Your task to perform on an android device: Clear all items from cart on amazon.com. Search for dell xps on amazon.com, select the first entry, and add it to the cart. Image 0: 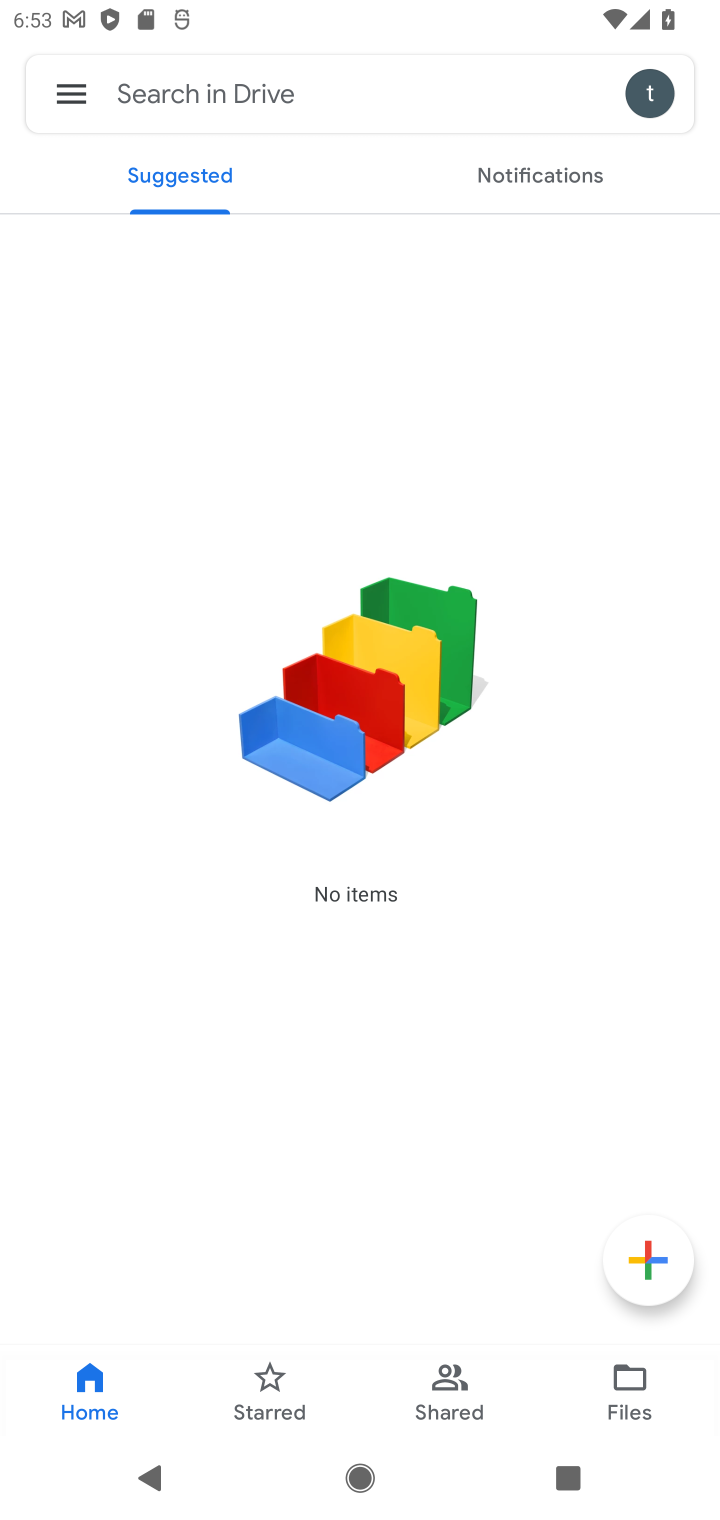
Step 0: press home button
Your task to perform on an android device: Clear all items from cart on amazon.com. Search for dell xps on amazon.com, select the first entry, and add it to the cart. Image 1: 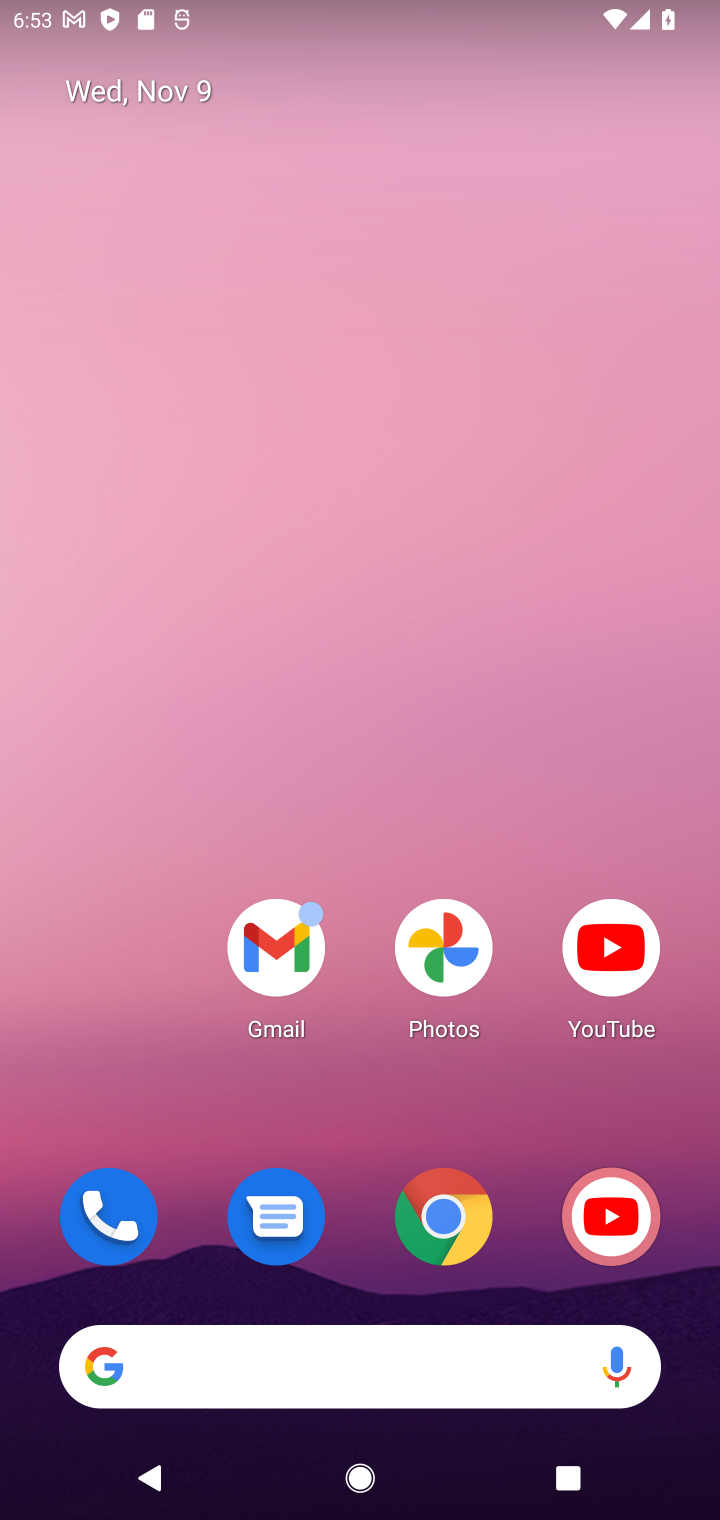
Step 1: drag from (198, 946) to (224, 138)
Your task to perform on an android device: Clear all items from cart on amazon.com. Search for dell xps on amazon.com, select the first entry, and add it to the cart. Image 2: 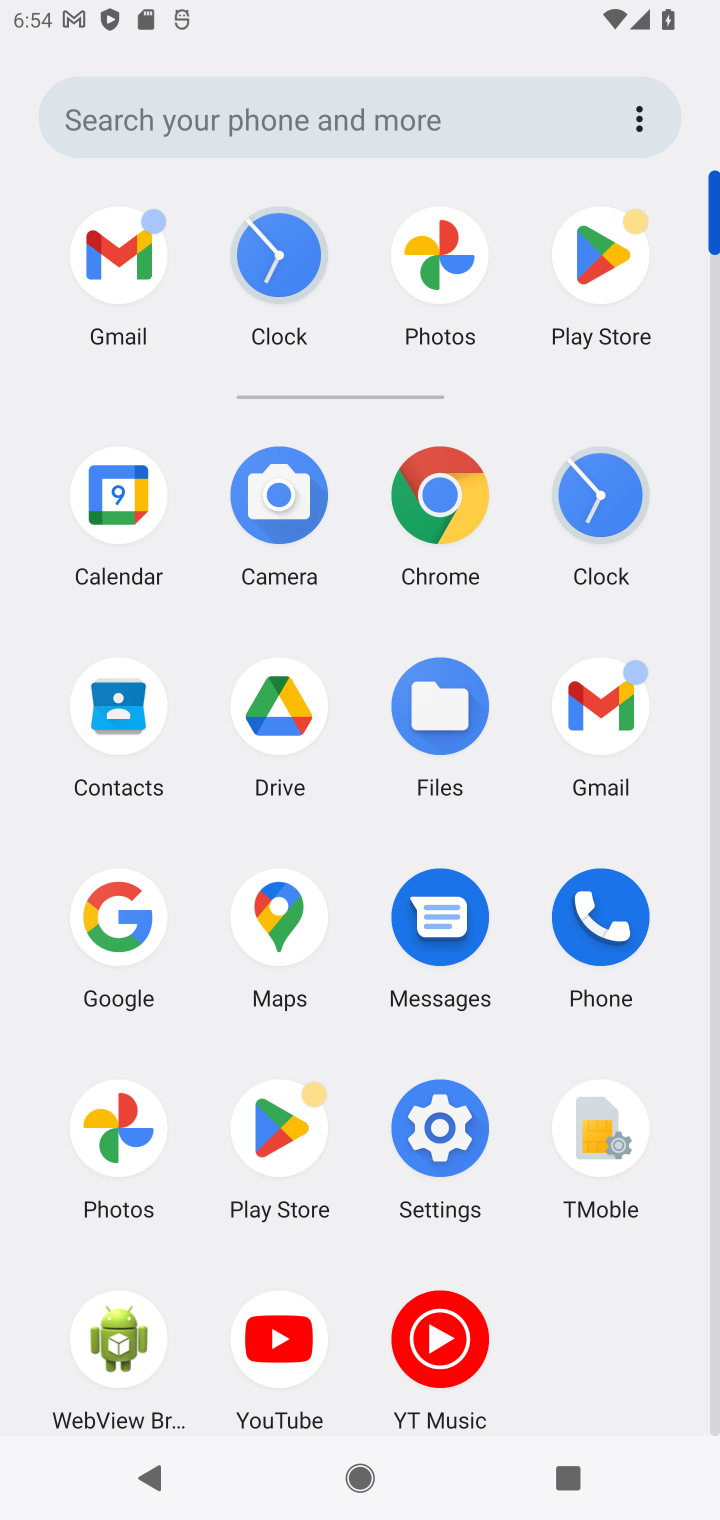
Step 2: click (438, 501)
Your task to perform on an android device: Clear all items from cart on amazon.com. Search for dell xps on amazon.com, select the first entry, and add it to the cart. Image 3: 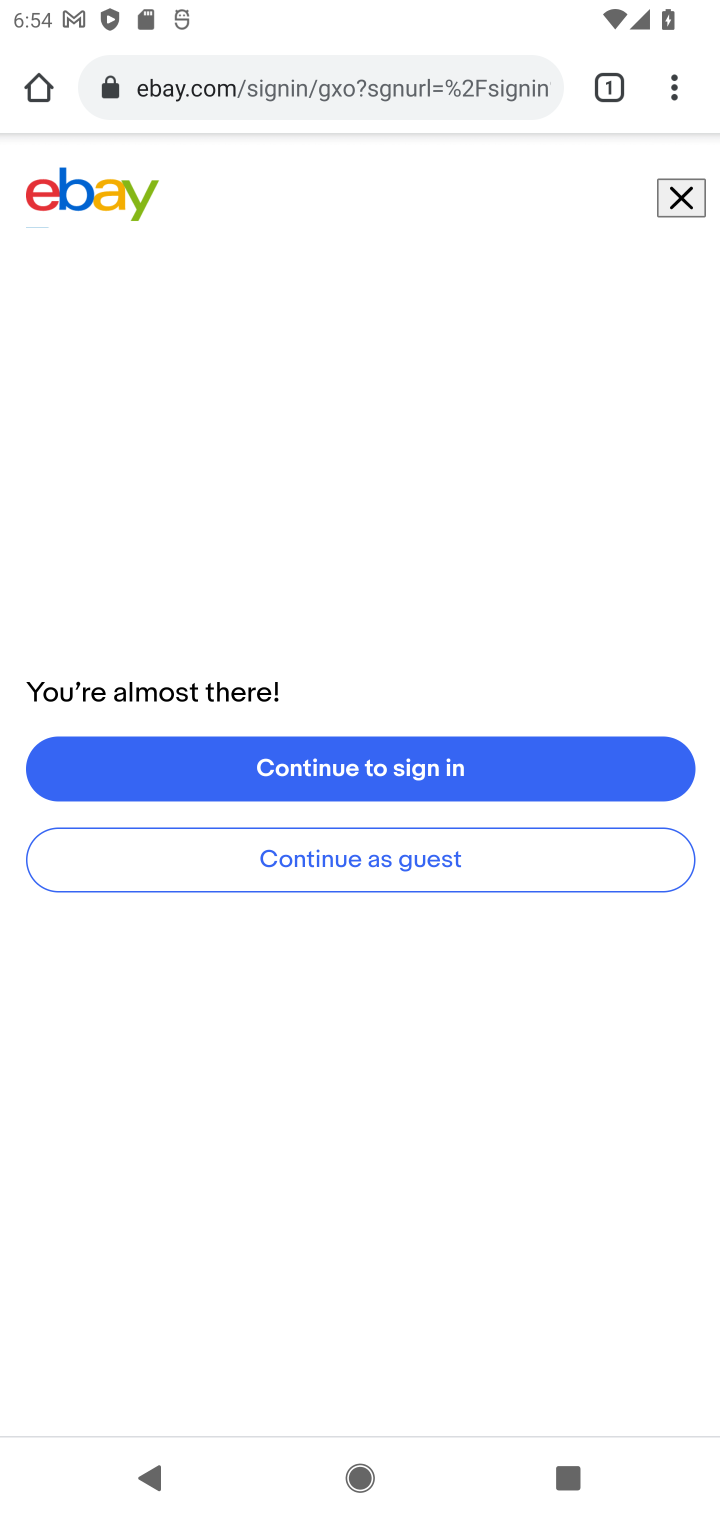
Step 3: click (419, 91)
Your task to perform on an android device: Clear all items from cart on amazon.com. Search for dell xps on amazon.com, select the first entry, and add it to the cart. Image 4: 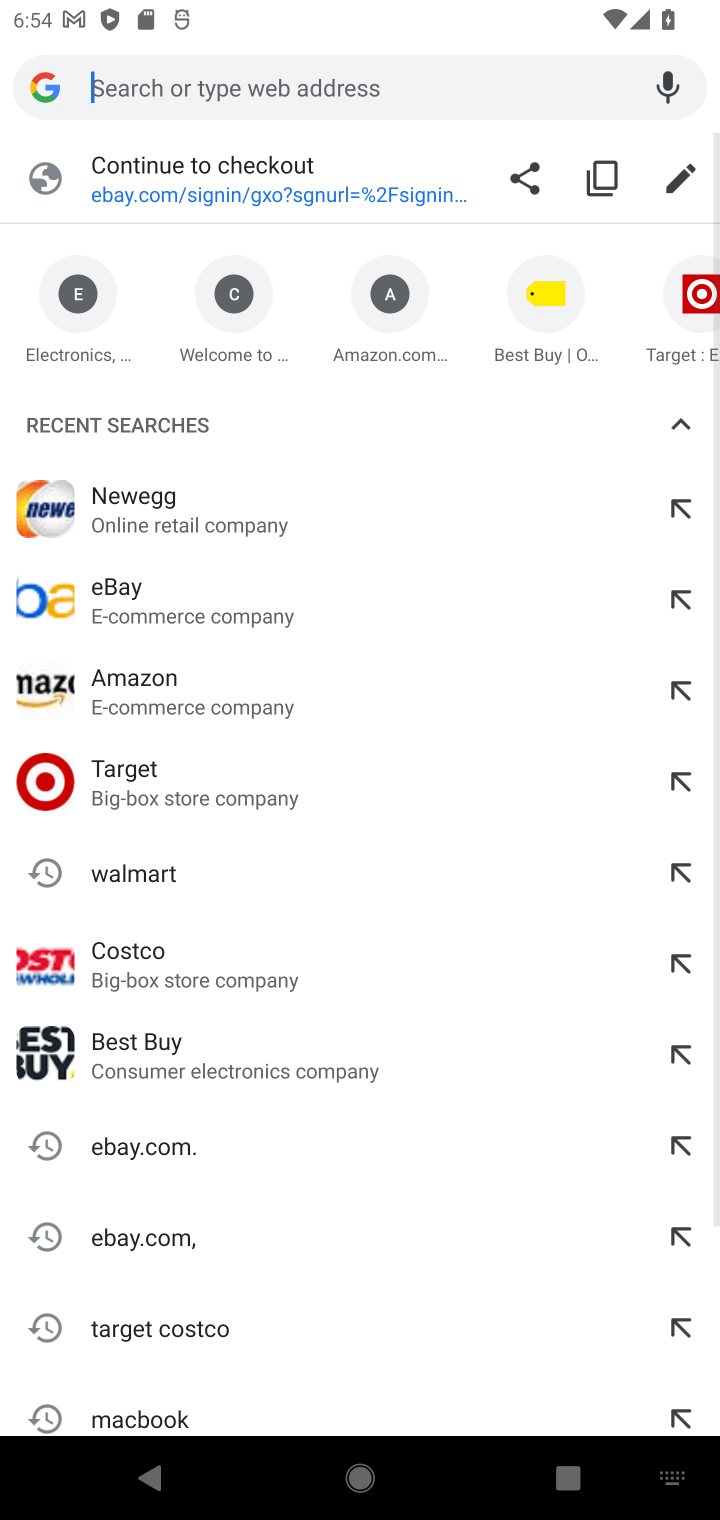
Step 4: type "amazon.com"
Your task to perform on an android device: Clear all items from cart on amazon.com. Search for dell xps on amazon.com, select the first entry, and add it to the cart. Image 5: 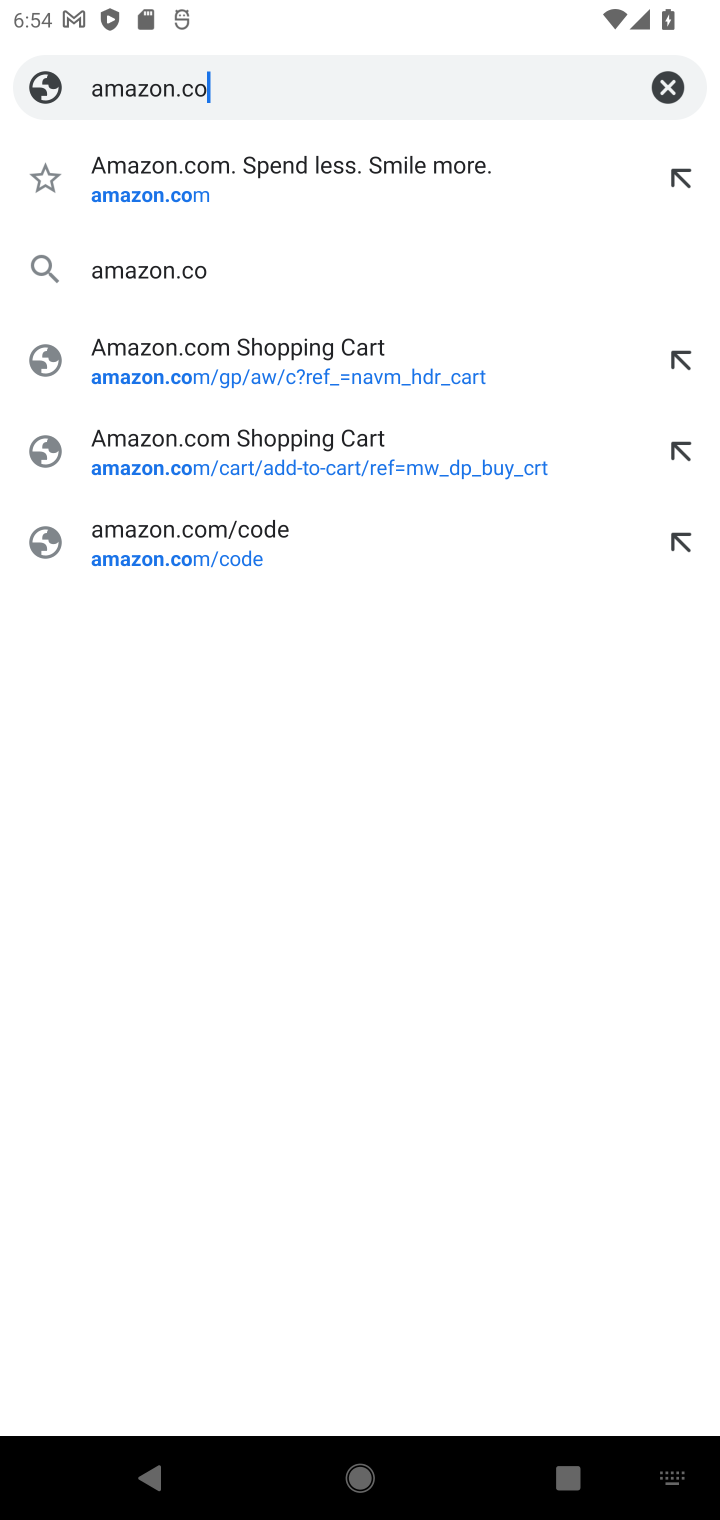
Step 5: press enter
Your task to perform on an android device: Clear all items from cart on amazon.com. Search for dell xps on amazon.com, select the first entry, and add it to the cart. Image 6: 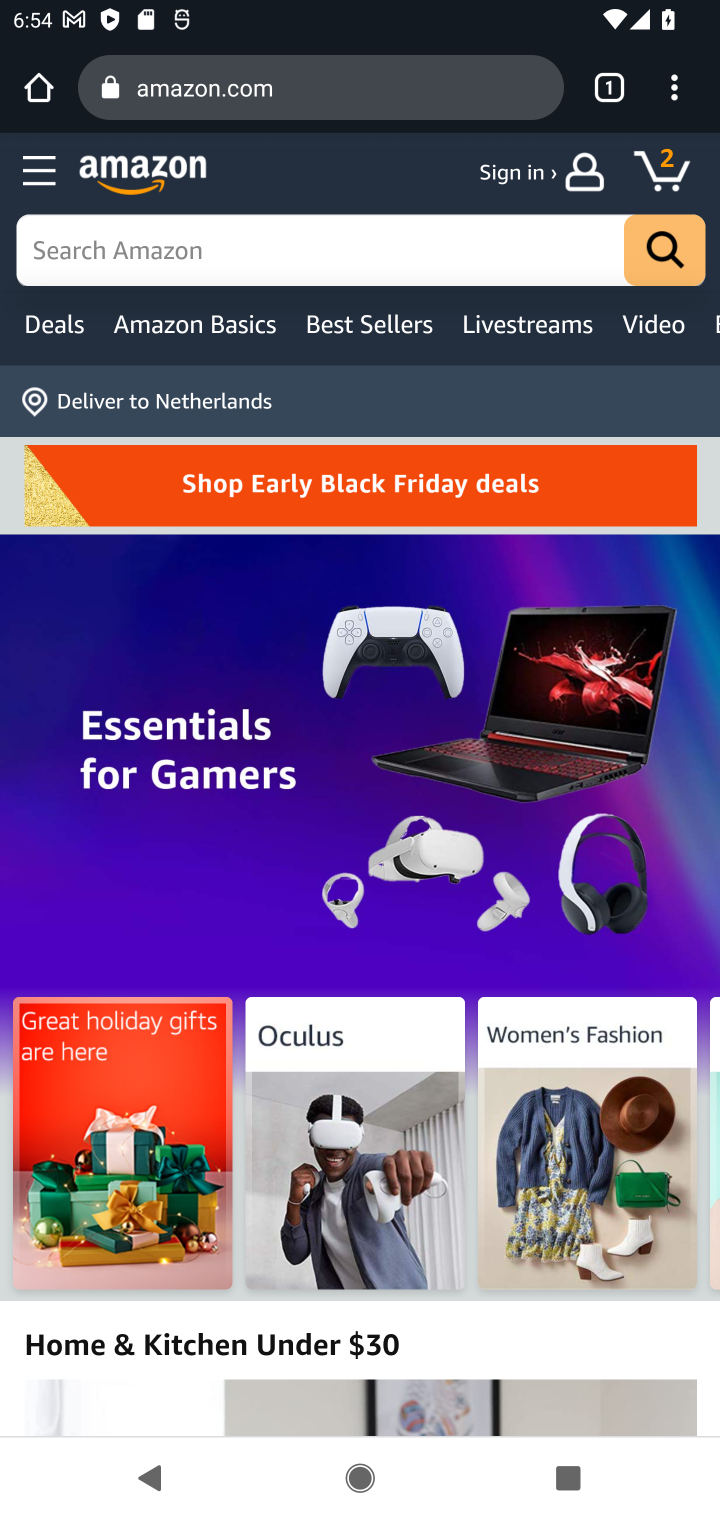
Step 6: click (669, 162)
Your task to perform on an android device: Clear all items from cart on amazon.com. Search for dell xps on amazon.com, select the first entry, and add it to the cart. Image 7: 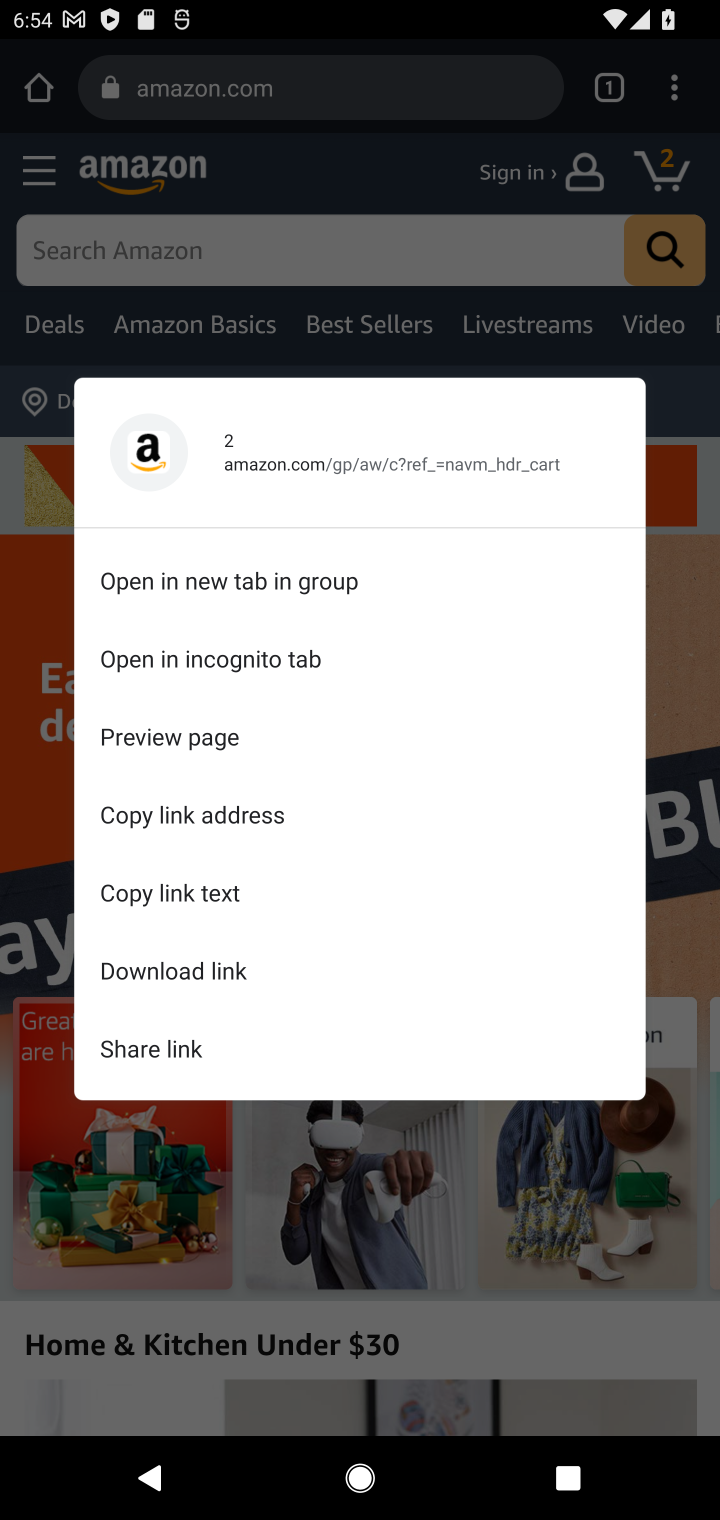
Step 7: click (661, 177)
Your task to perform on an android device: Clear all items from cart on amazon.com. Search for dell xps on amazon.com, select the first entry, and add it to the cart. Image 8: 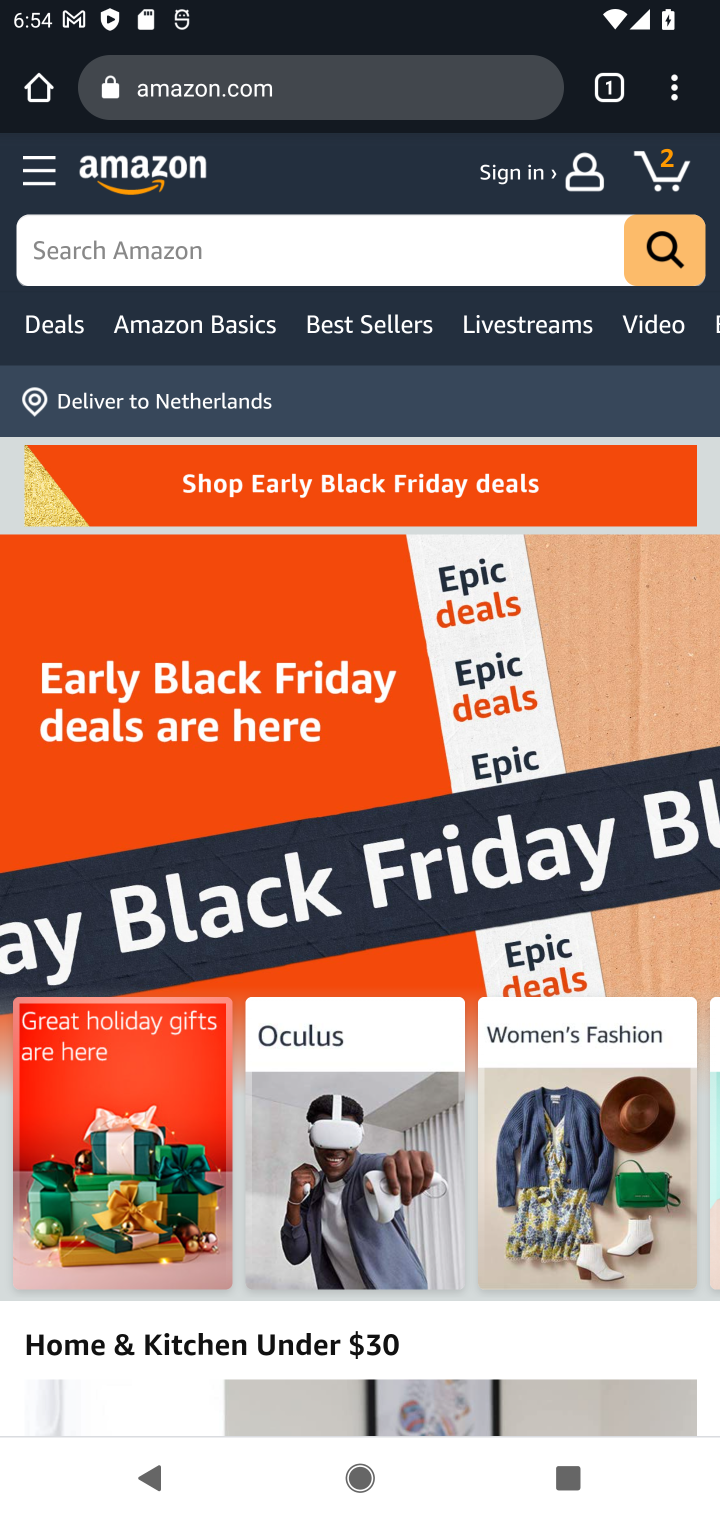
Step 8: click (661, 177)
Your task to perform on an android device: Clear all items from cart on amazon.com. Search for dell xps on amazon.com, select the first entry, and add it to the cart. Image 9: 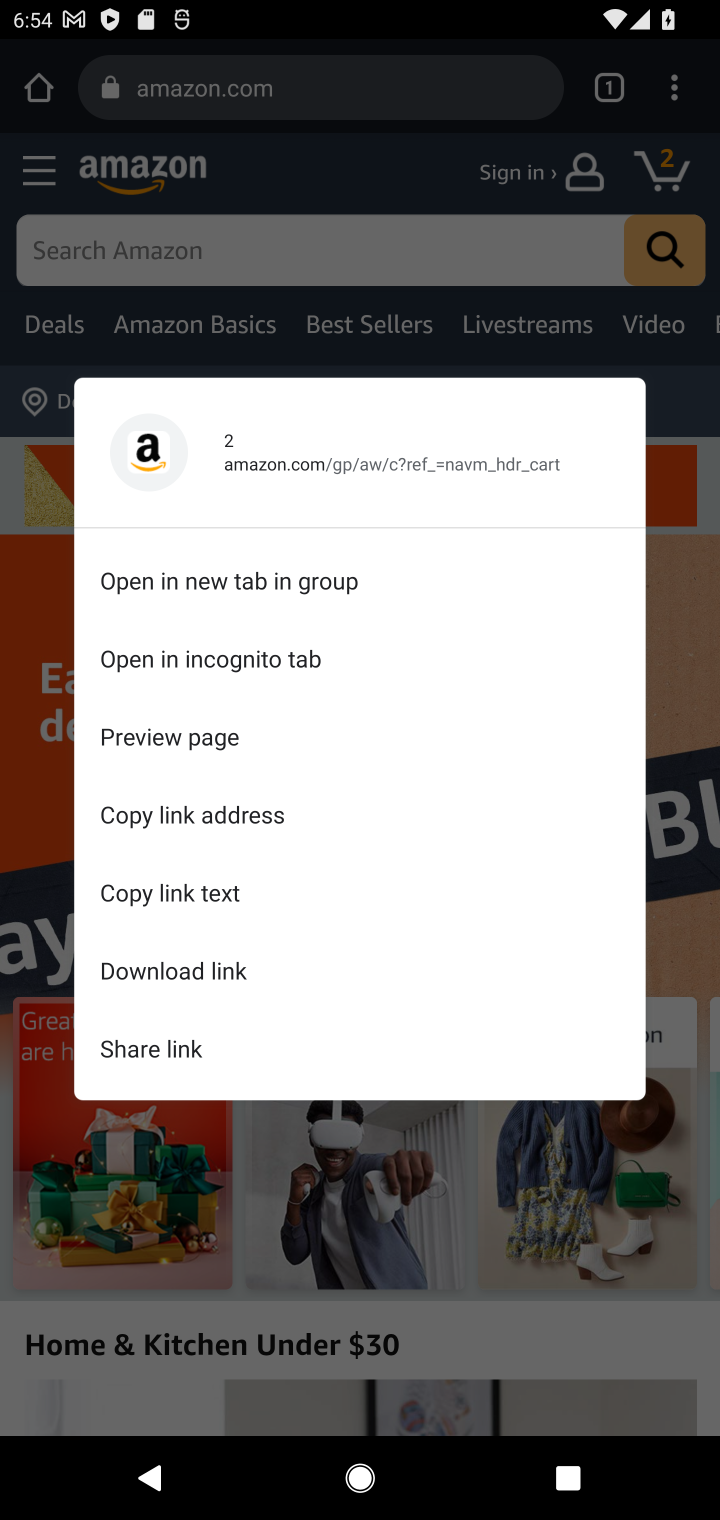
Step 9: click (680, 165)
Your task to perform on an android device: Clear all items from cart on amazon.com. Search for dell xps on amazon.com, select the first entry, and add it to the cart. Image 10: 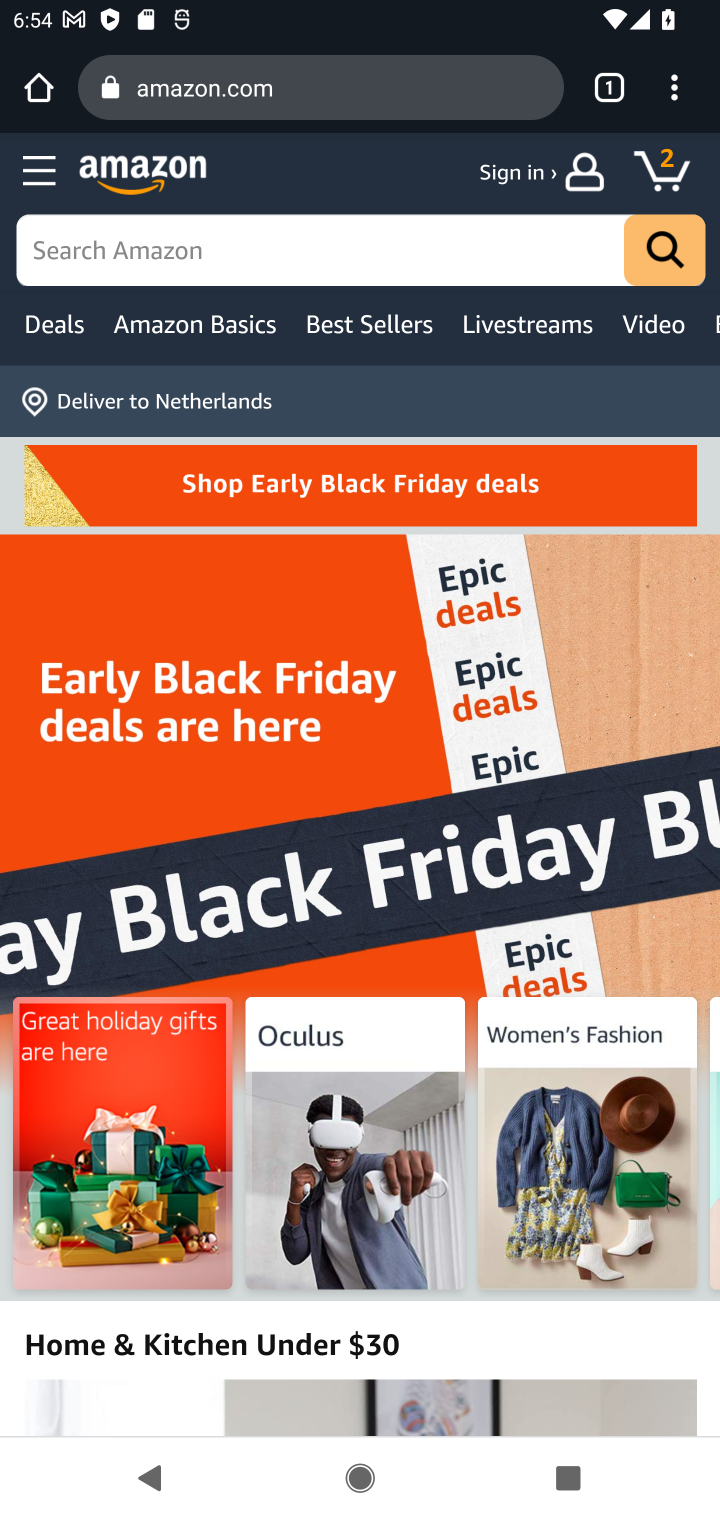
Step 10: click (678, 170)
Your task to perform on an android device: Clear all items from cart on amazon.com. Search for dell xps on amazon.com, select the first entry, and add it to the cart. Image 11: 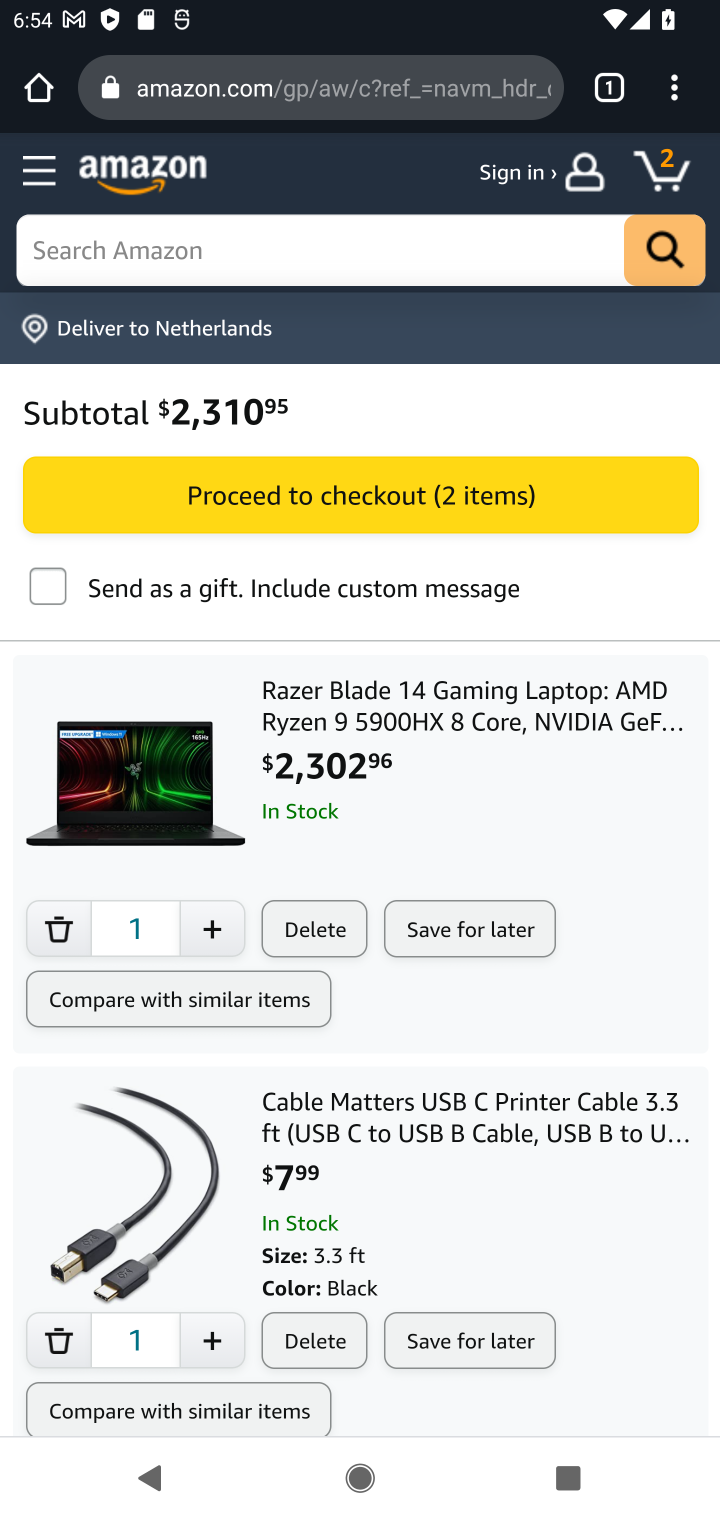
Step 11: click (54, 925)
Your task to perform on an android device: Clear all items from cart on amazon.com. Search for dell xps on amazon.com, select the first entry, and add it to the cart. Image 12: 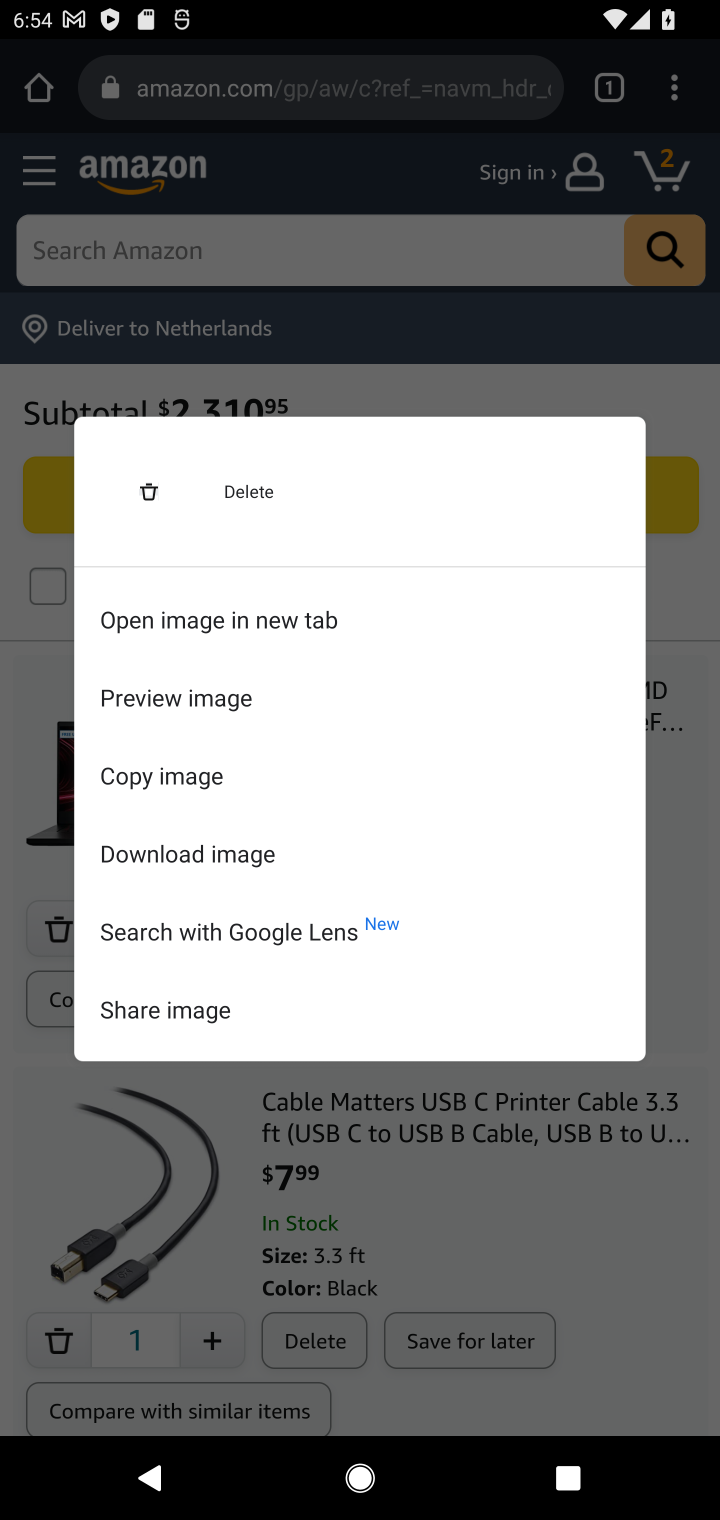
Step 12: click (35, 912)
Your task to perform on an android device: Clear all items from cart on amazon.com. Search for dell xps on amazon.com, select the first entry, and add it to the cart. Image 13: 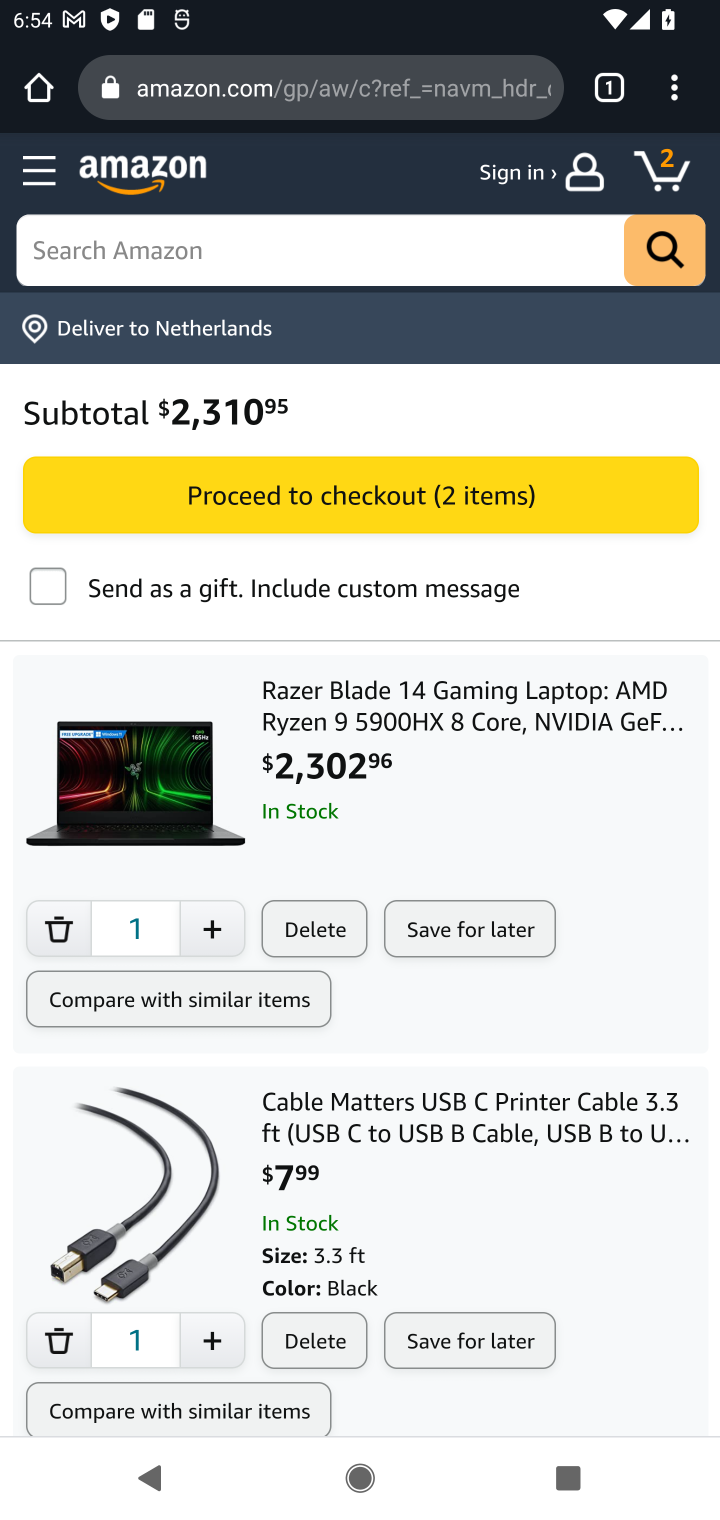
Step 13: click (52, 922)
Your task to perform on an android device: Clear all items from cart on amazon.com. Search for dell xps on amazon.com, select the first entry, and add it to the cart. Image 14: 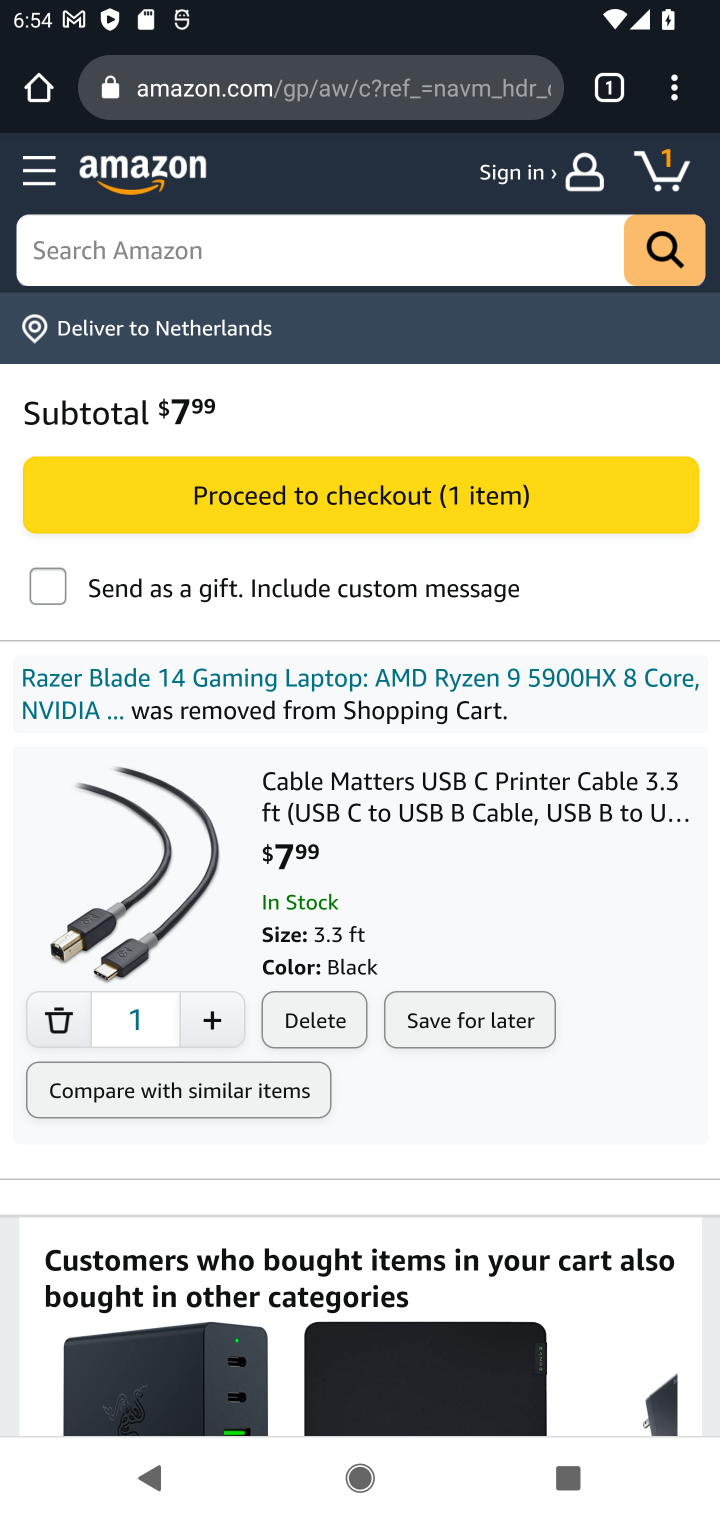
Step 14: click (63, 1022)
Your task to perform on an android device: Clear all items from cart on amazon.com. Search for dell xps on amazon.com, select the first entry, and add it to the cart. Image 15: 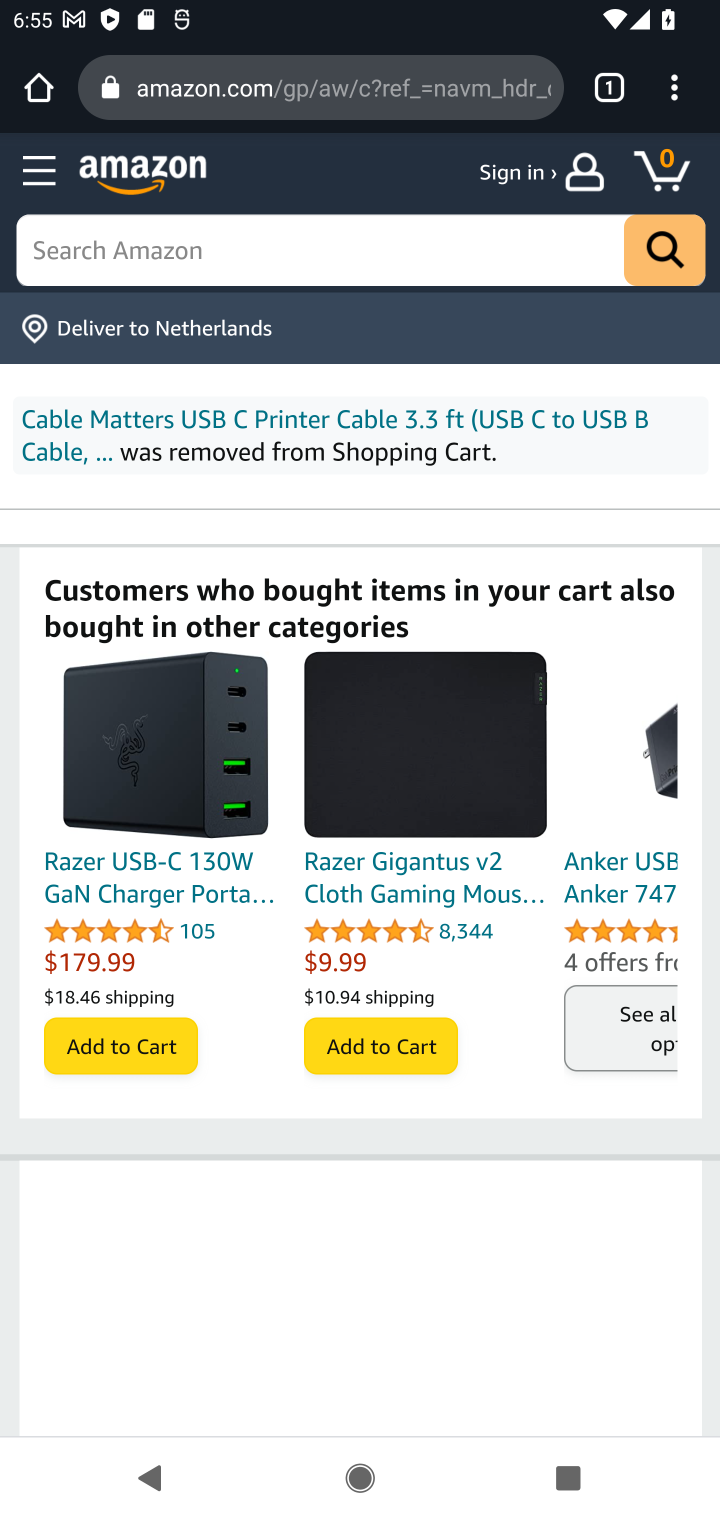
Step 15: click (488, 260)
Your task to perform on an android device: Clear all items from cart on amazon.com. Search for dell xps on amazon.com, select the first entry, and add it to the cart. Image 16: 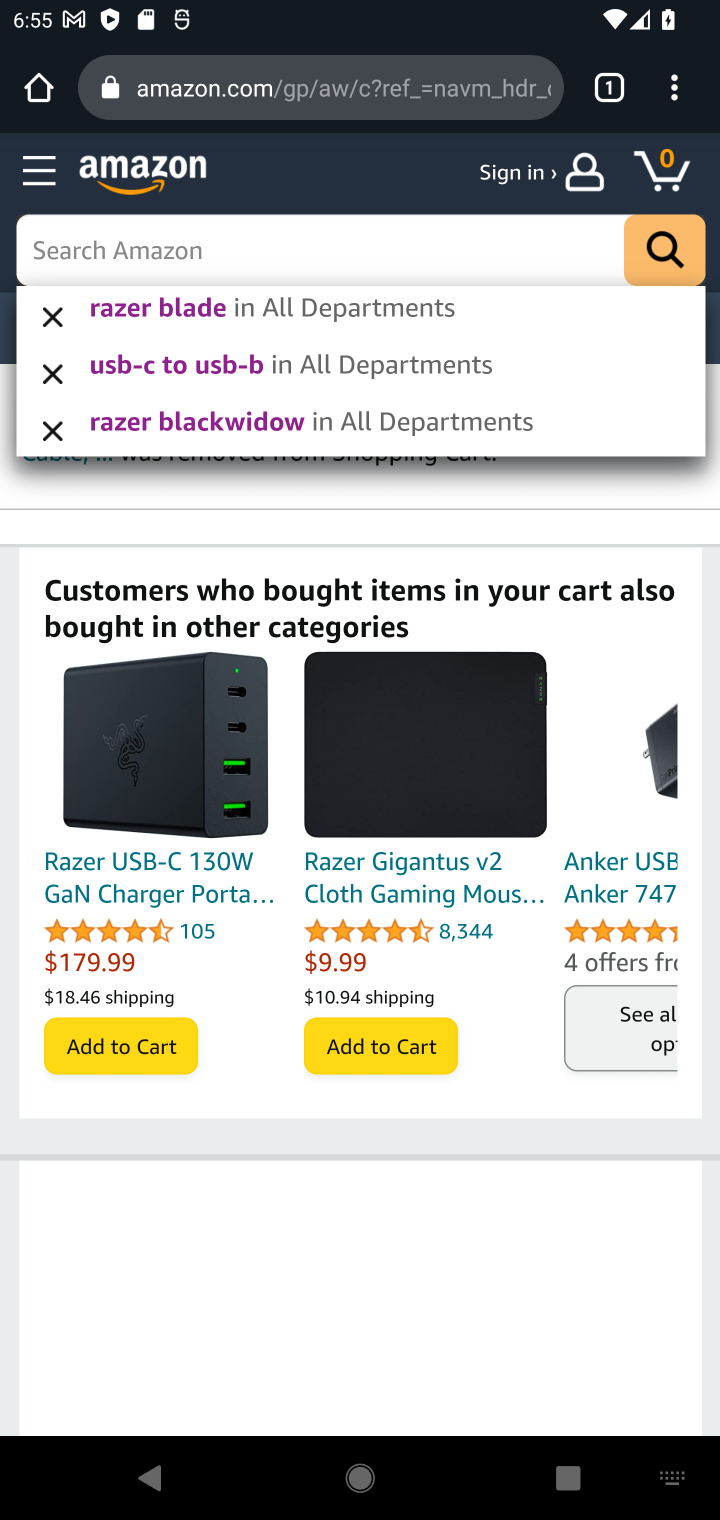
Step 16: type "dell xps"
Your task to perform on an android device: Clear all items from cart on amazon.com. Search for dell xps on amazon.com, select the first entry, and add it to the cart. Image 17: 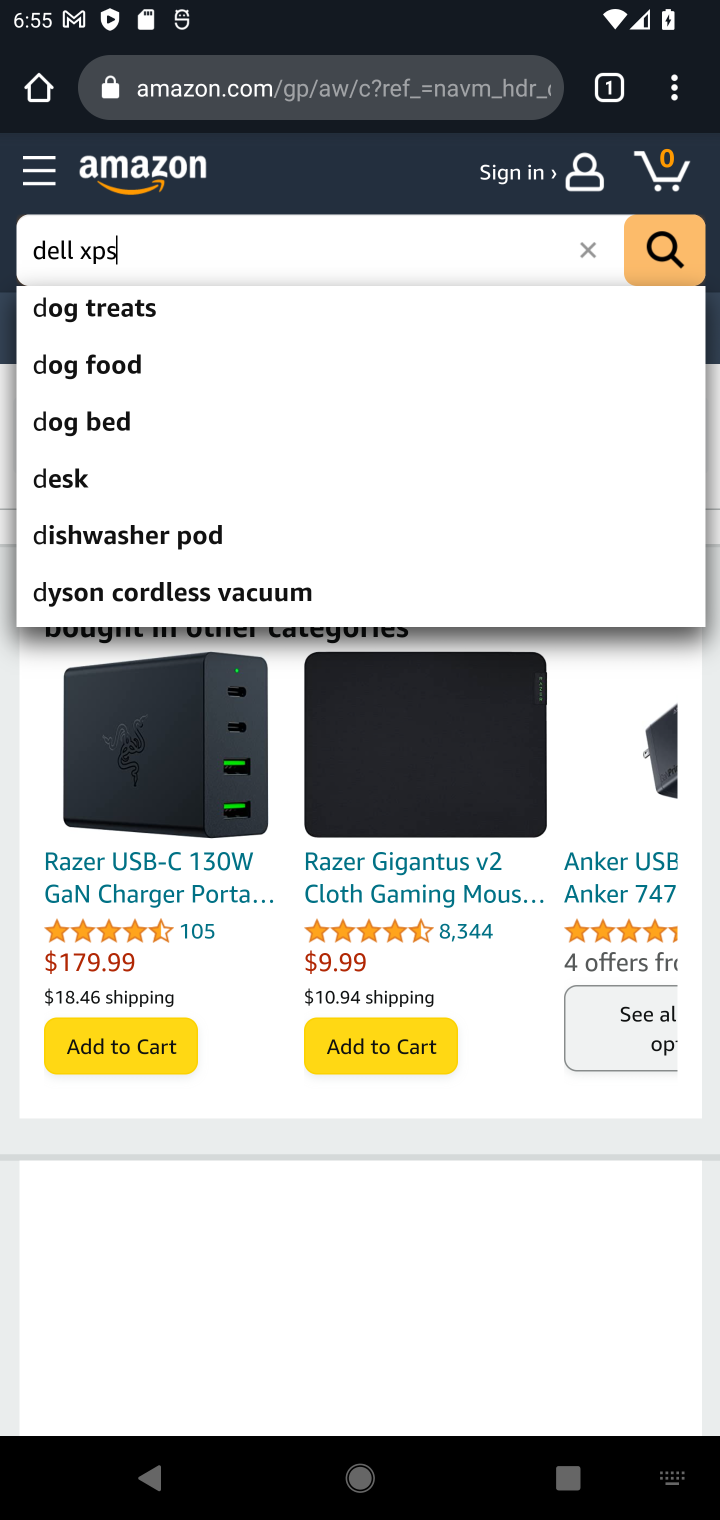
Step 17: press enter
Your task to perform on an android device: Clear all items from cart on amazon.com. Search for dell xps on amazon.com, select the first entry, and add it to the cart. Image 18: 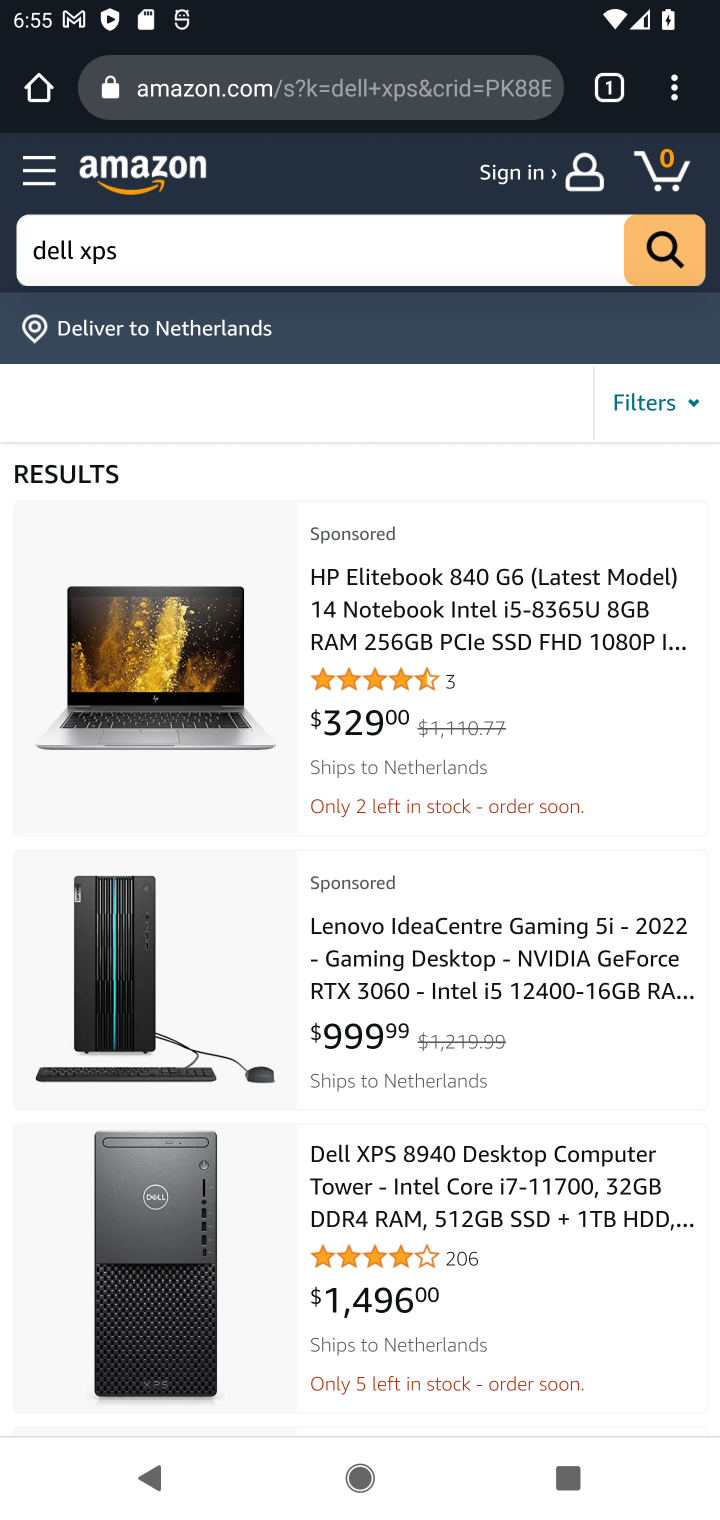
Step 18: drag from (458, 675) to (456, 359)
Your task to perform on an android device: Clear all items from cart on amazon.com. Search for dell xps on amazon.com, select the first entry, and add it to the cart. Image 19: 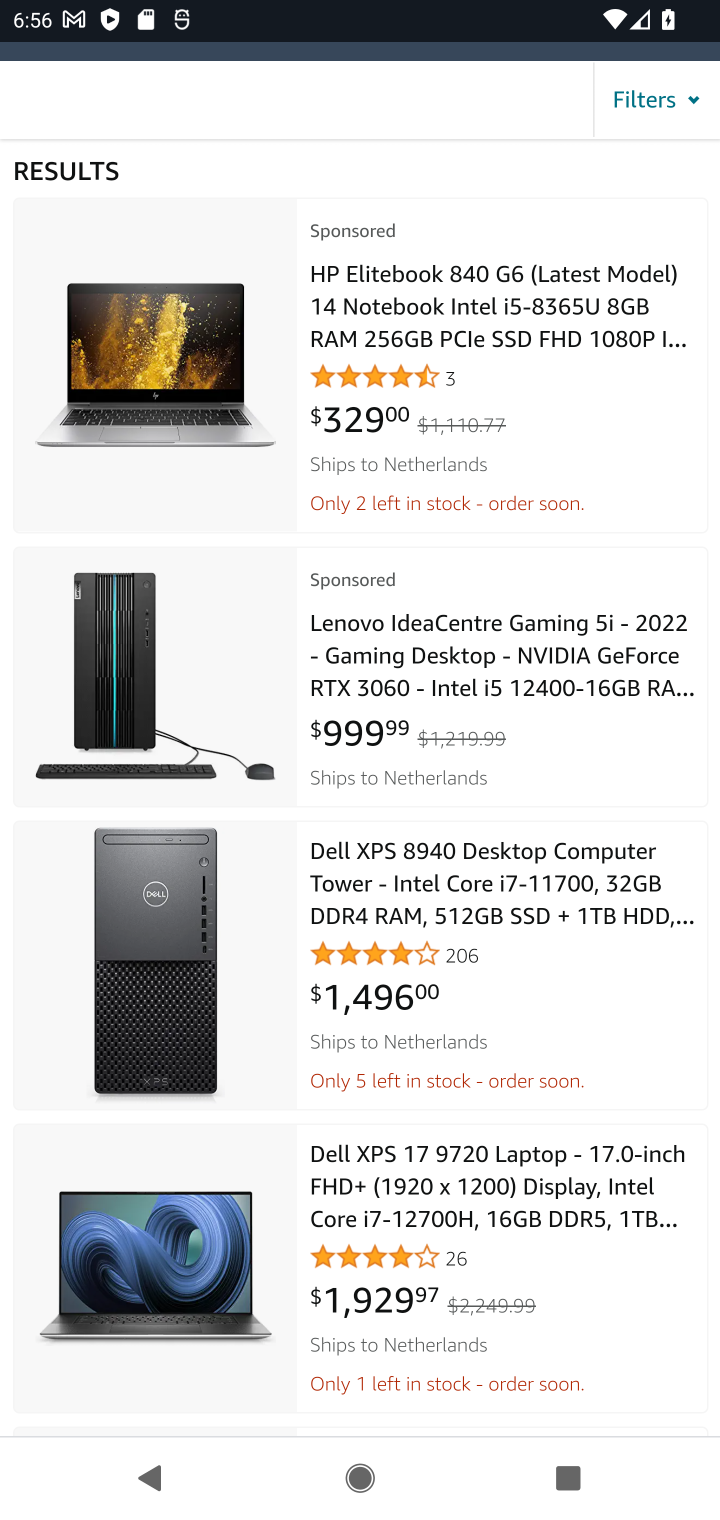
Step 19: click (361, 897)
Your task to perform on an android device: Clear all items from cart on amazon.com. Search for dell xps on amazon.com, select the first entry, and add it to the cart. Image 20: 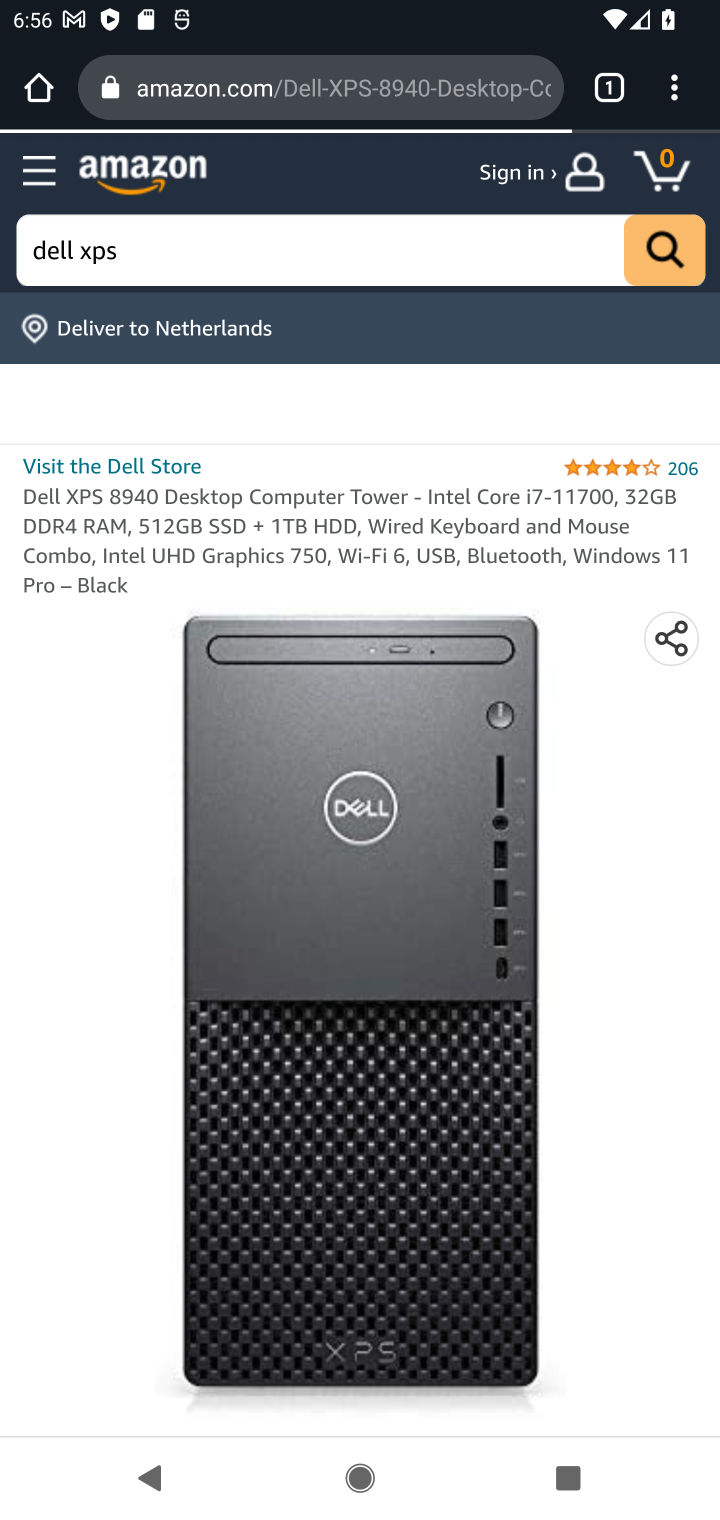
Step 20: drag from (462, 780) to (455, 520)
Your task to perform on an android device: Clear all items from cart on amazon.com. Search for dell xps on amazon.com, select the first entry, and add it to the cart. Image 21: 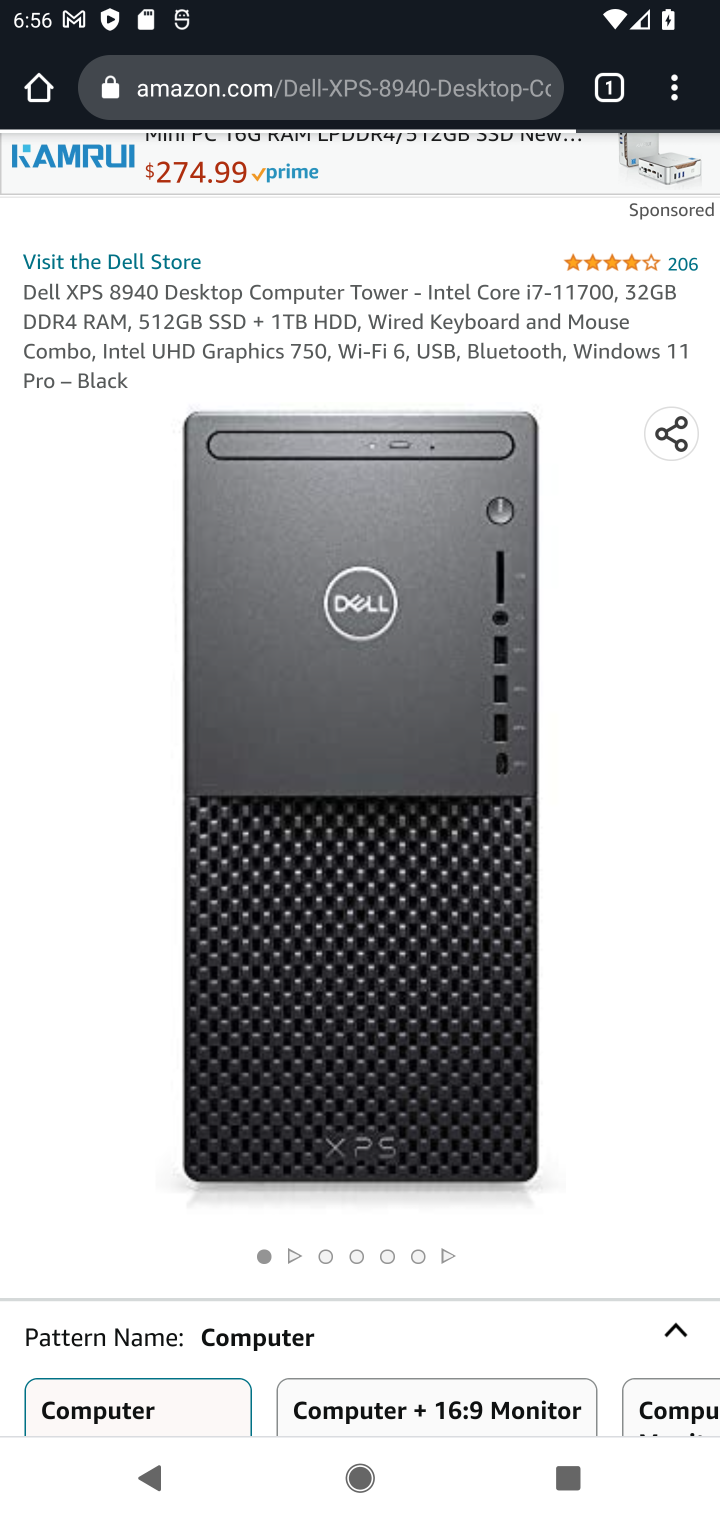
Step 21: drag from (401, 928) to (479, 222)
Your task to perform on an android device: Clear all items from cart on amazon.com. Search for dell xps on amazon.com, select the first entry, and add it to the cart. Image 22: 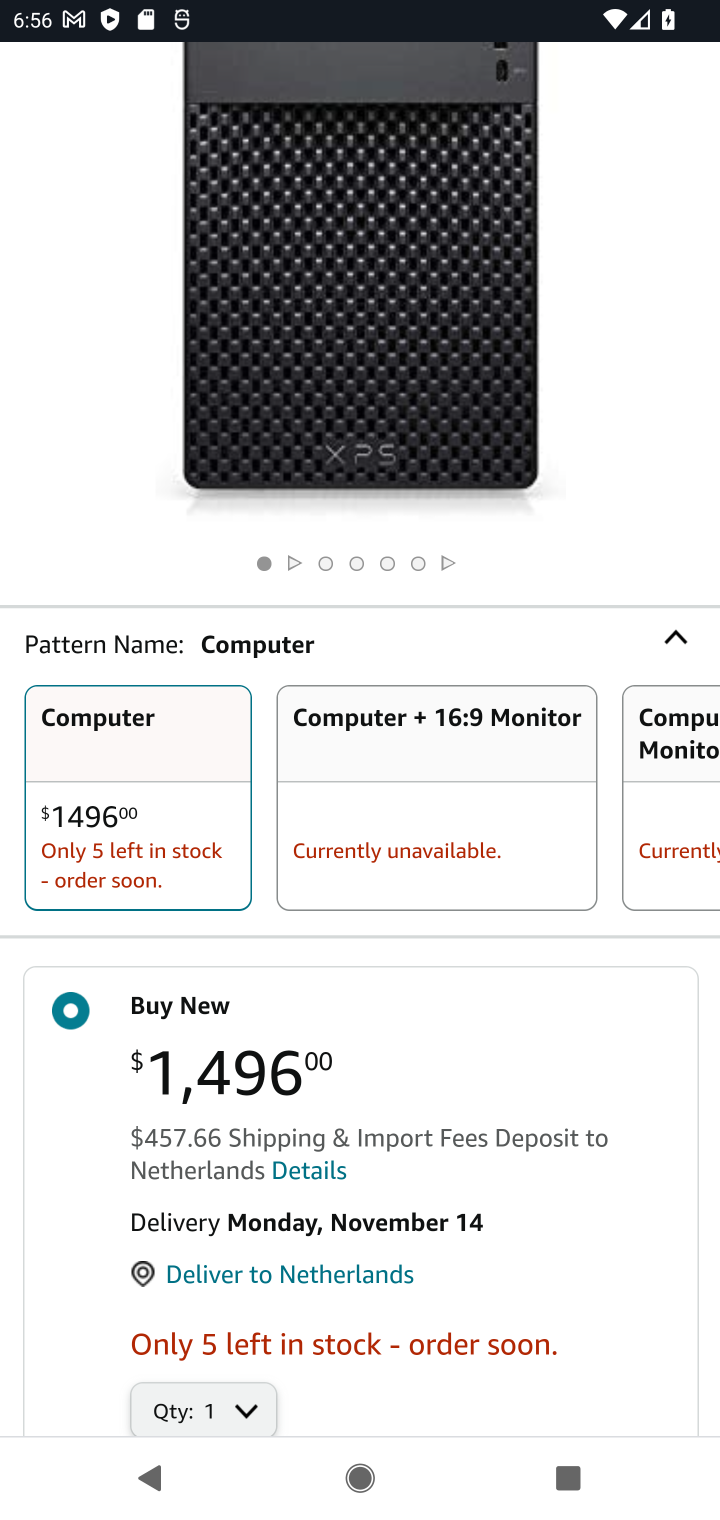
Step 22: drag from (472, 1092) to (482, 222)
Your task to perform on an android device: Clear all items from cart on amazon.com. Search for dell xps on amazon.com, select the first entry, and add it to the cart. Image 23: 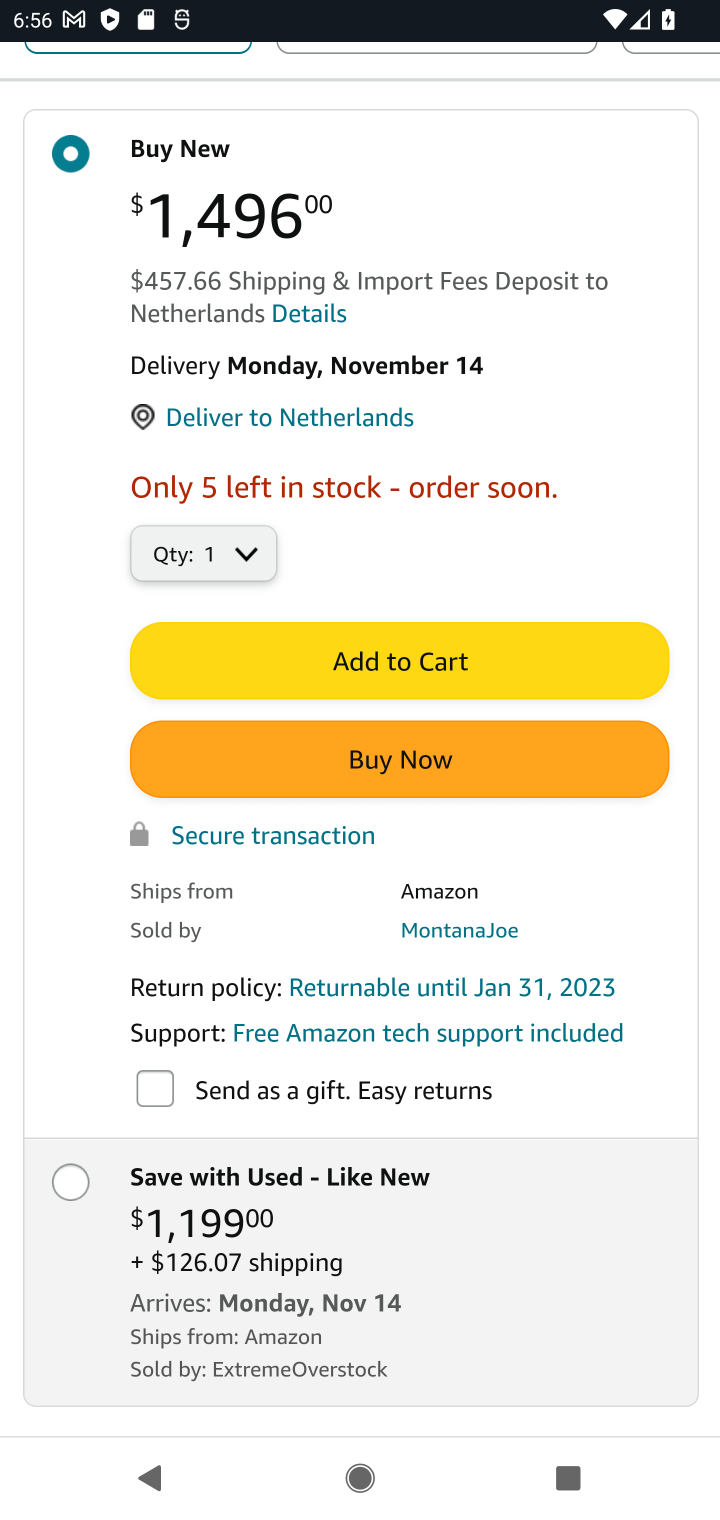
Step 23: click (529, 665)
Your task to perform on an android device: Clear all items from cart on amazon.com. Search for dell xps on amazon.com, select the first entry, and add it to the cart. Image 24: 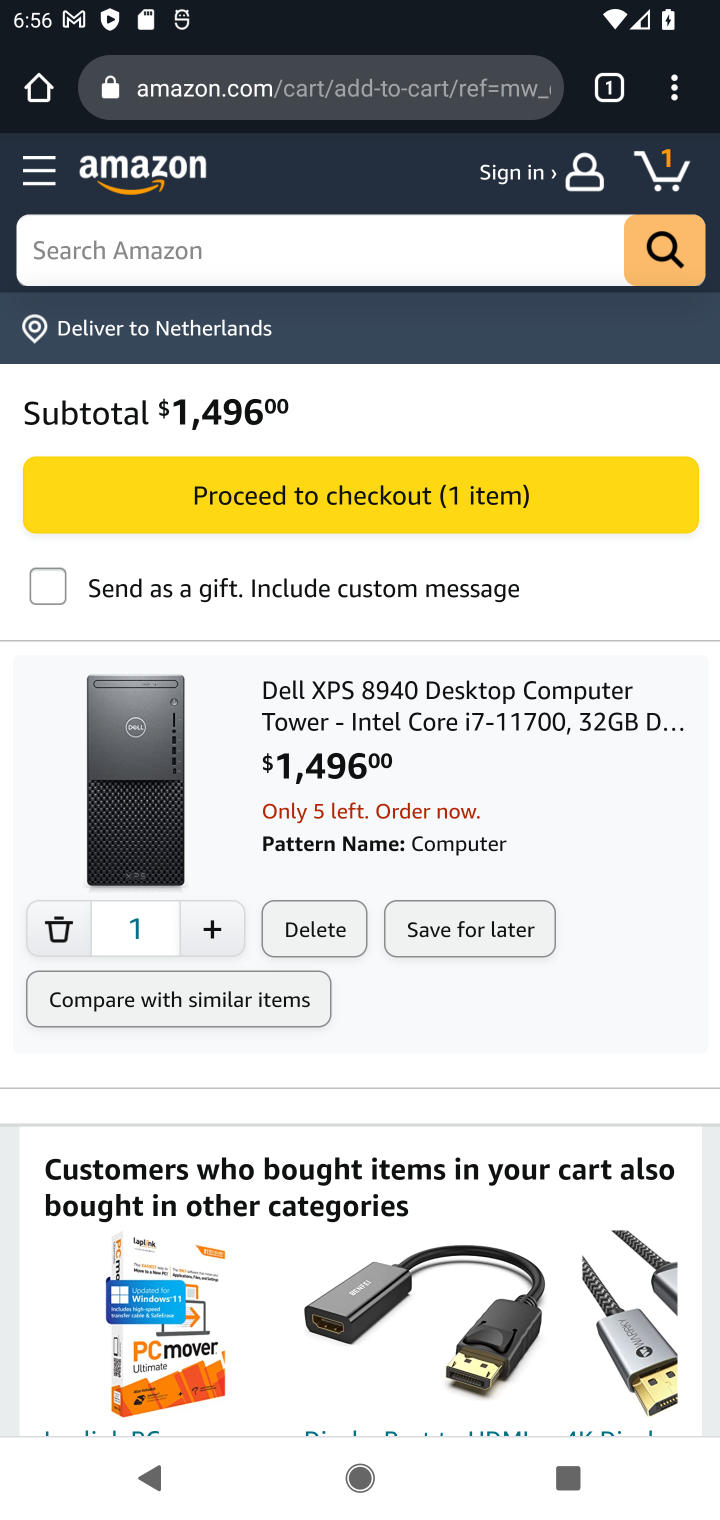
Step 24: task complete